Your task to perform on an android device: add a label to a message in the gmail app Image 0: 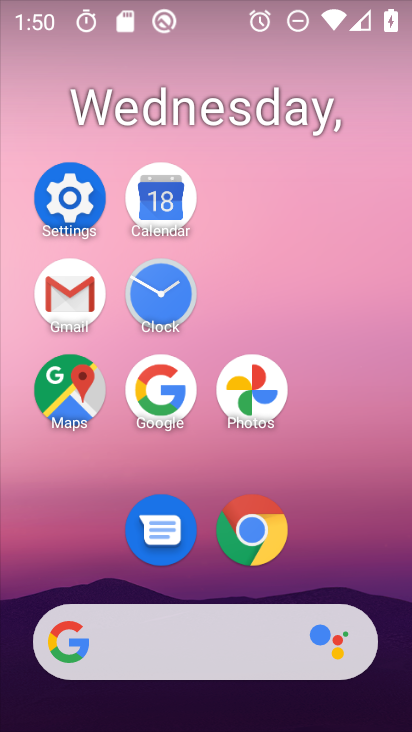
Step 0: click (73, 314)
Your task to perform on an android device: add a label to a message in the gmail app Image 1: 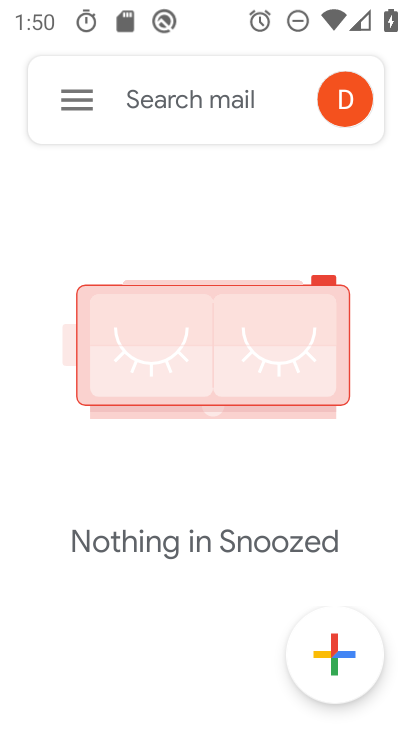
Step 1: click (81, 104)
Your task to perform on an android device: add a label to a message in the gmail app Image 2: 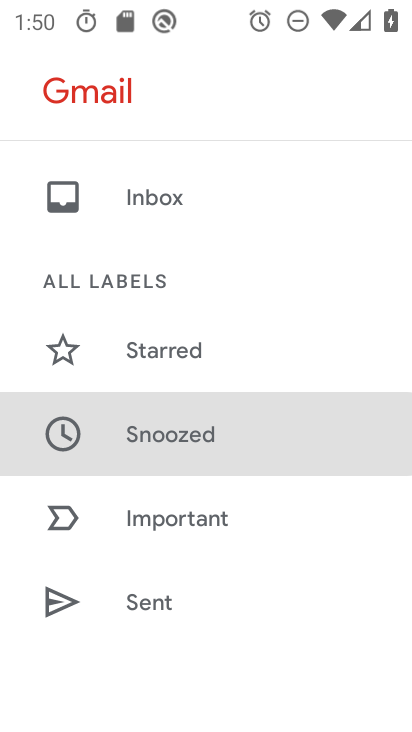
Step 2: drag from (175, 528) to (257, 147)
Your task to perform on an android device: add a label to a message in the gmail app Image 3: 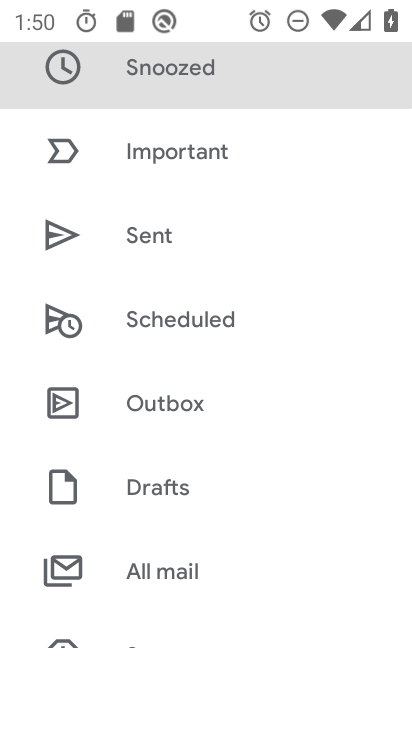
Step 3: drag from (247, 508) to (298, 185)
Your task to perform on an android device: add a label to a message in the gmail app Image 4: 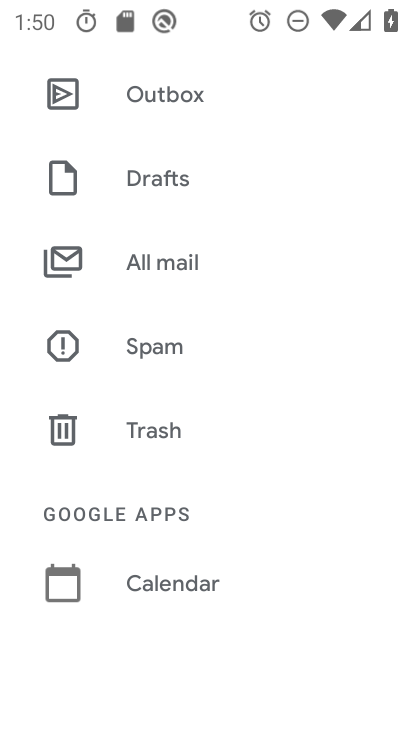
Step 4: click (284, 255)
Your task to perform on an android device: add a label to a message in the gmail app Image 5: 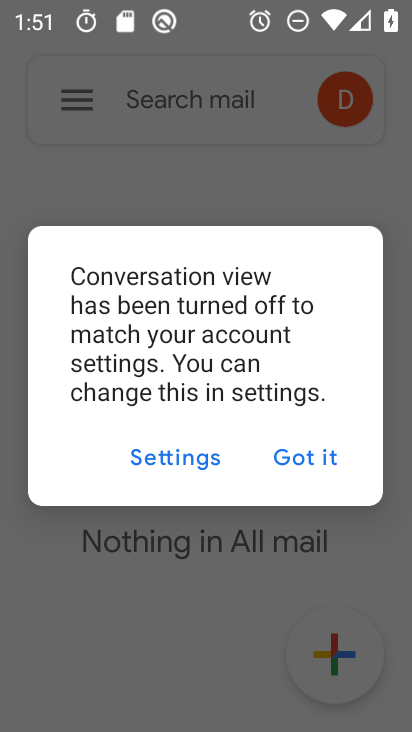
Step 5: click (310, 466)
Your task to perform on an android device: add a label to a message in the gmail app Image 6: 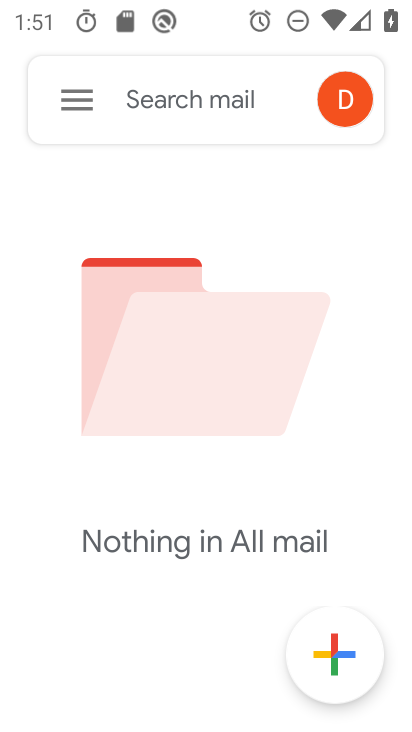
Step 6: task complete